Your task to perform on an android device: Search for "logitech g502" on costco, select the first entry, and add it to the cart. Image 0: 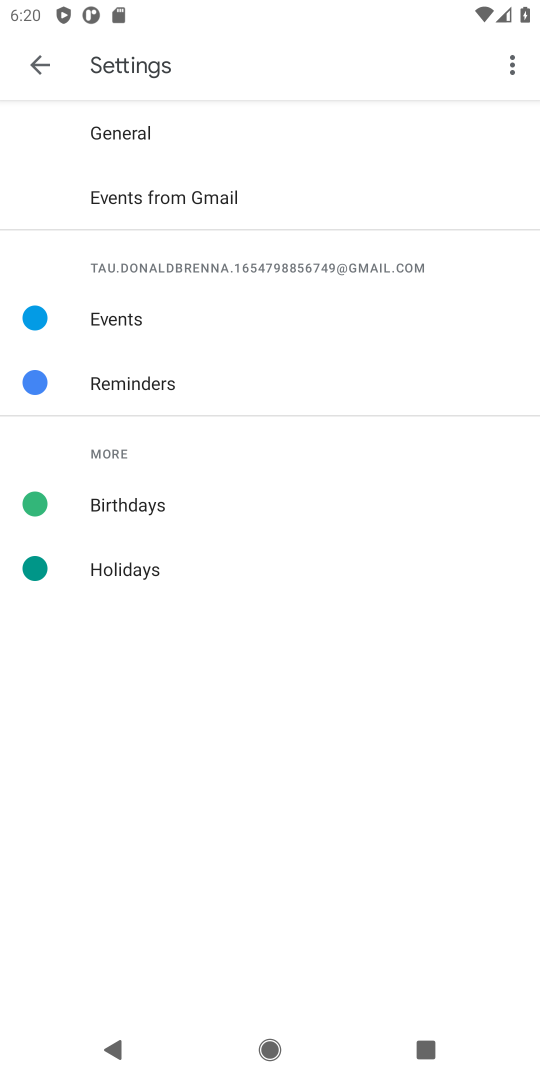
Step 0: press home button
Your task to perform on an android device: Search for "logitech g502" on costco, select the first entry, and add it to the cart. Image 1: 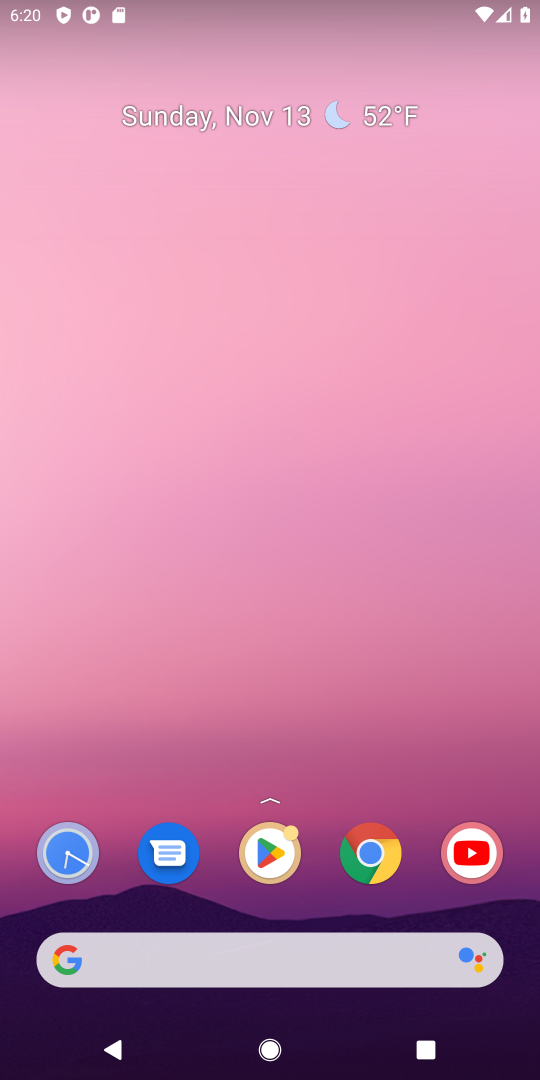
Step 1: click (100, 950)
Your task to perform on an android device: Search for "logitech g502" on costco, select the first entry, and add it to the cart. Image 2: 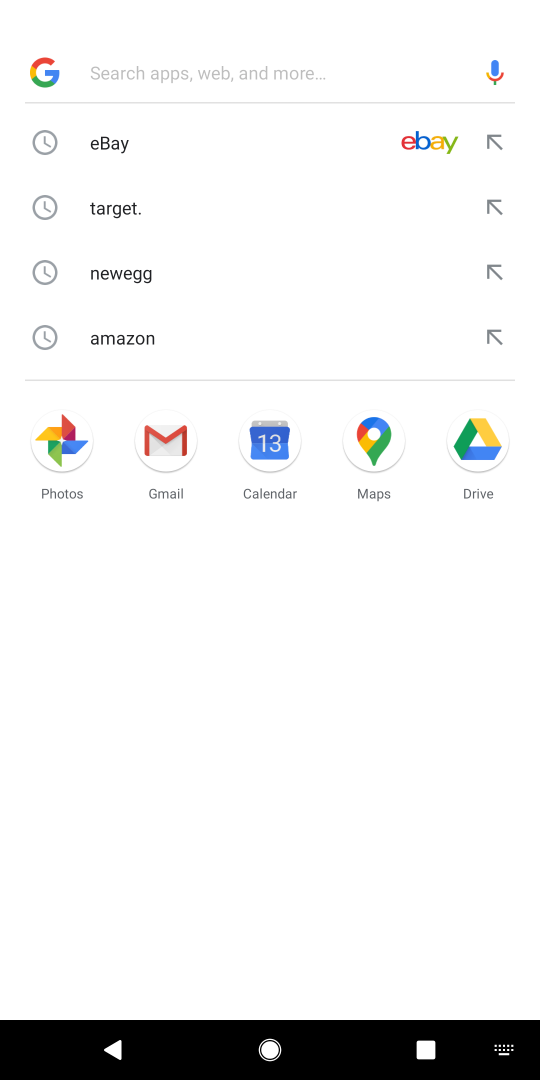
Step 2: type "costco"
Your task to perform on an android device: Search for "logitech g502" on costco, select the first entry, and add it to the cart. Image 3: 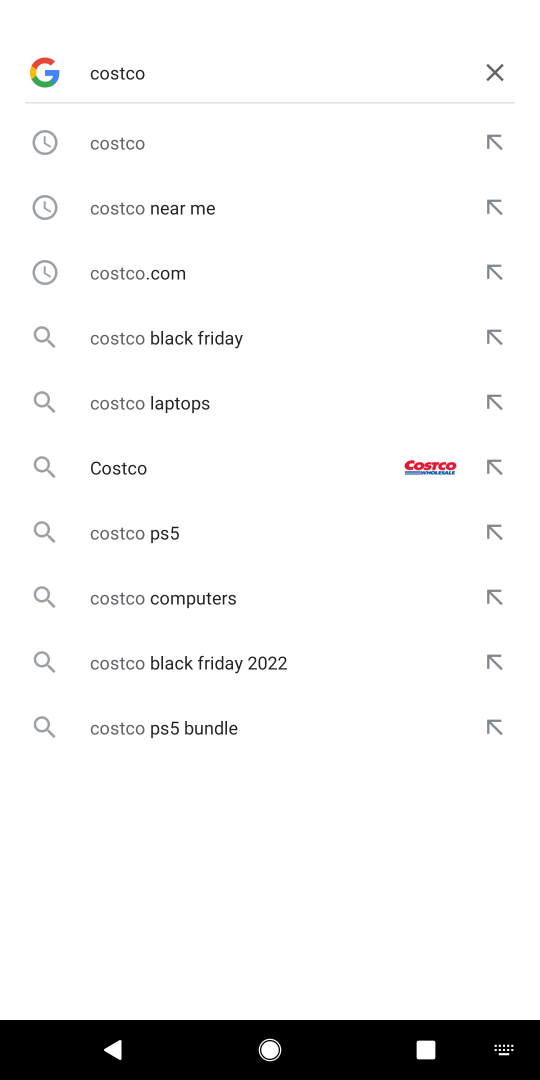
Step 3: press enter
Your task to perform on an android device: Search for "logitech g502" on costco, select the first entry, and add it to the cart. Image 4: 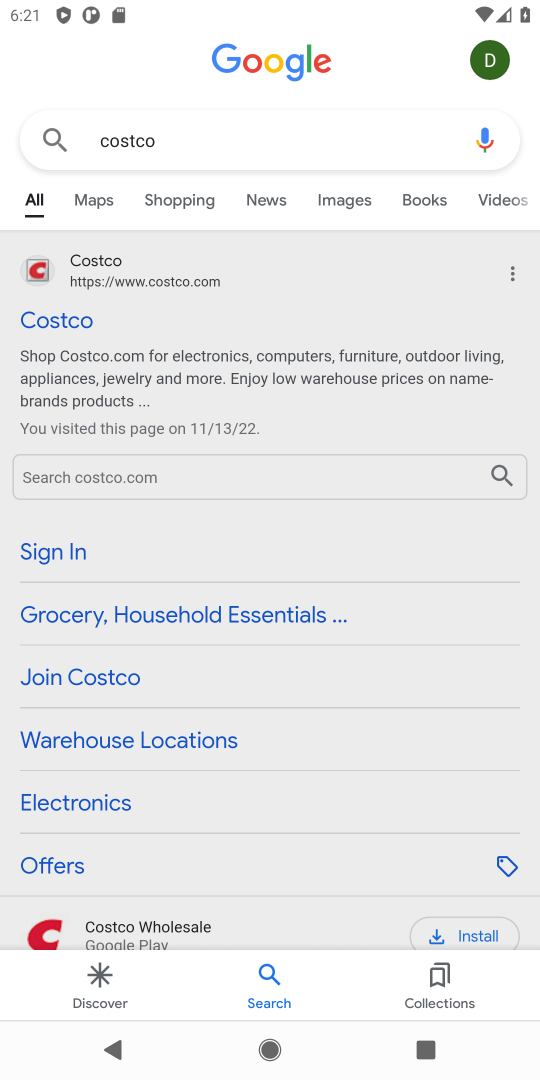
Step 4: click (52, 317)
Your task to perform on an android device: Search for "logitech g502" on costco, select the first entry, and add it to the cart. Image 5: 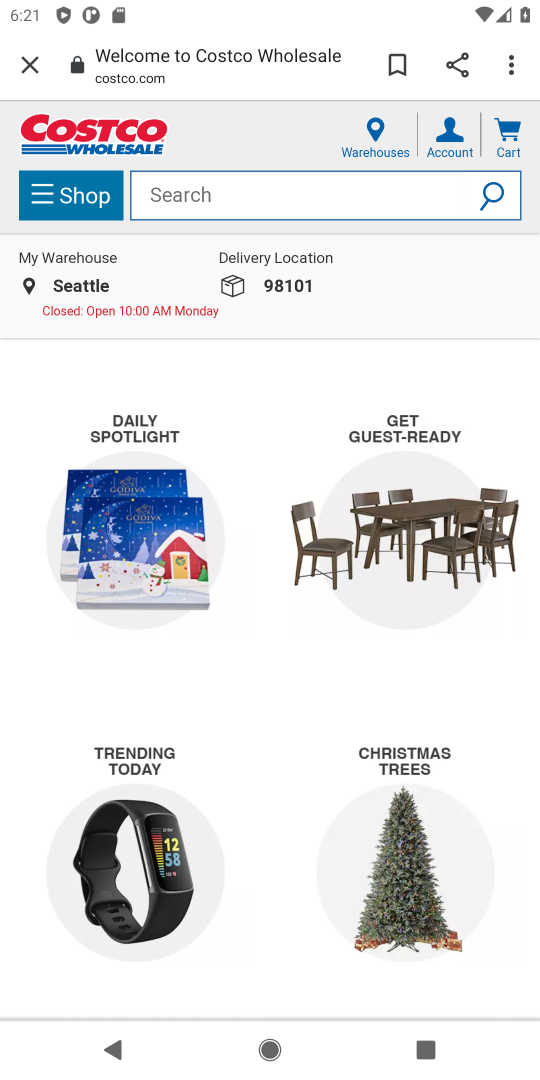
Step 5: click (155, 196)
Your task to perform on an android device: Search for "logitech g502" on costco, select the first entry, and add it to the cart. Image 6: 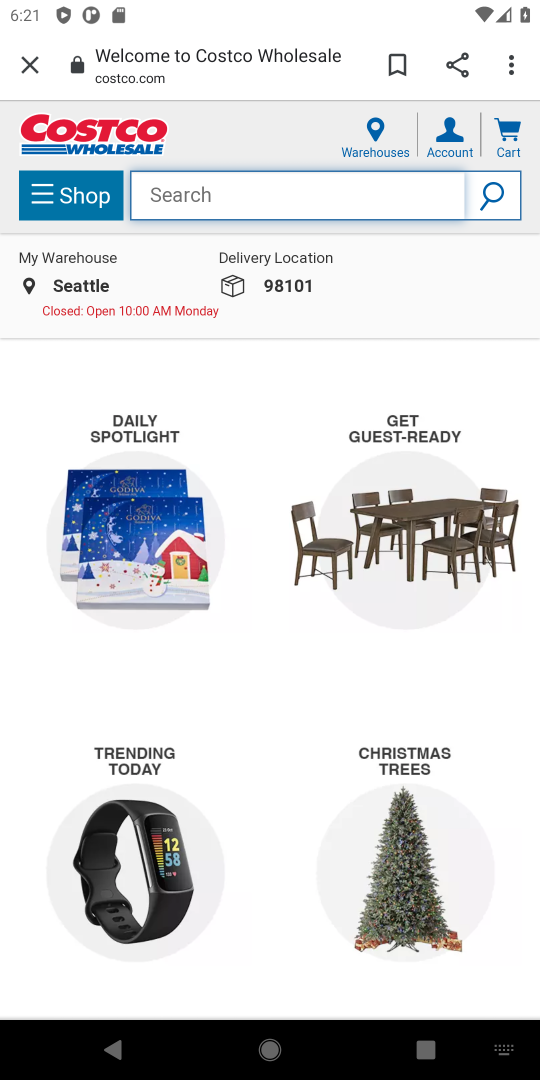
Step 6: type "logitech g502"
Your task to perform on an android device: Search for "logitech g502" on costco, select the first entry, and add it to the cart. Image 7: 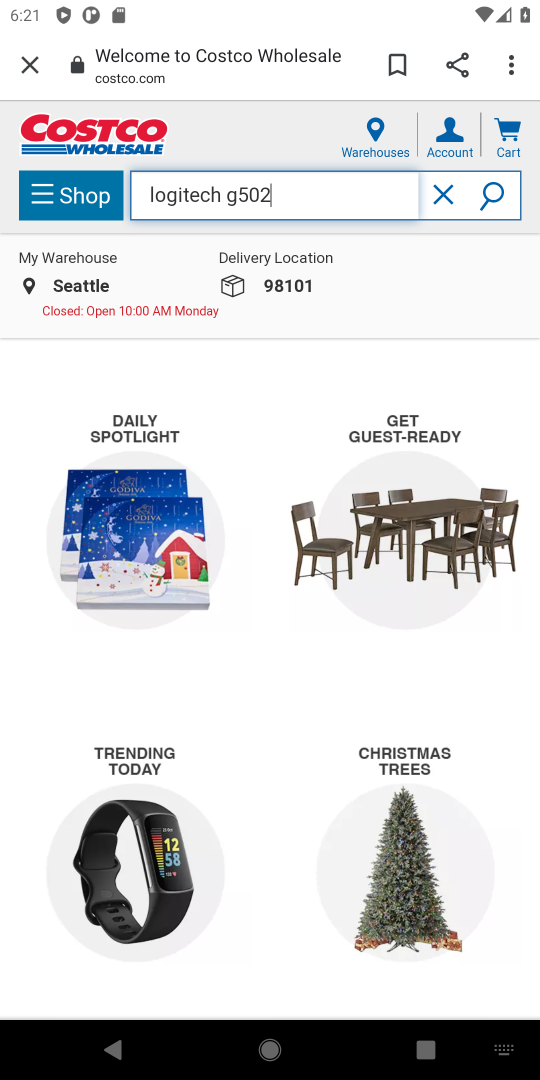
Step 7: press enter
Your task to perform on an android device: Search for "logitech g502" on costco, select the first entry, and add it to the cart. Image 8: 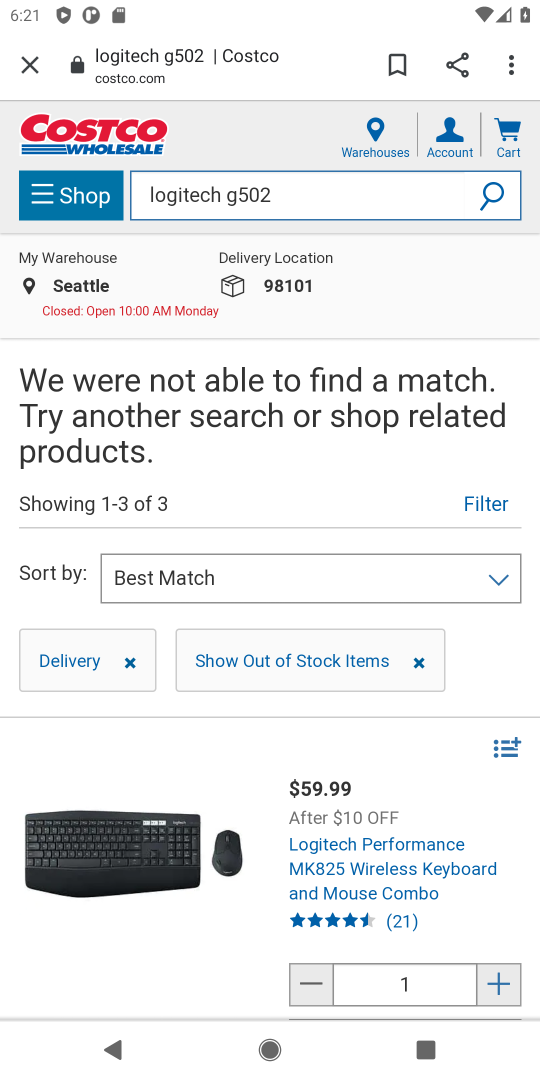
Step 8: task complete